Your task to perform on an android device: Do I have any events this weekend? Image 0: 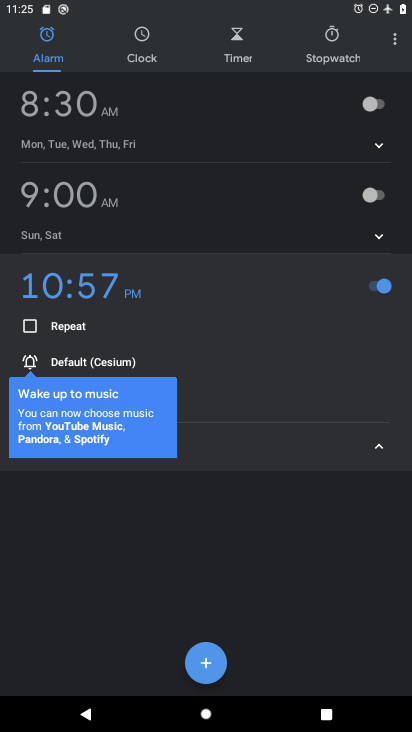
Step 0: press home button
Your task to perform on an android device: Do I have any events this weekend? Image 1: 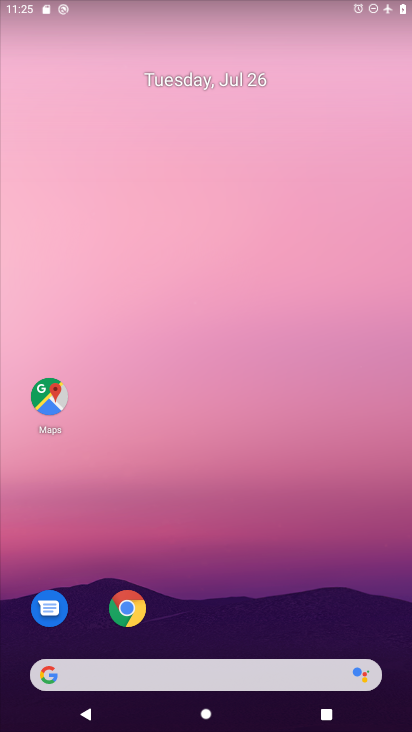
Step 1: drag from (256, 636) to (302, 195)
Your task to perform on an android device: Do I have any events this weekend? Image 2: 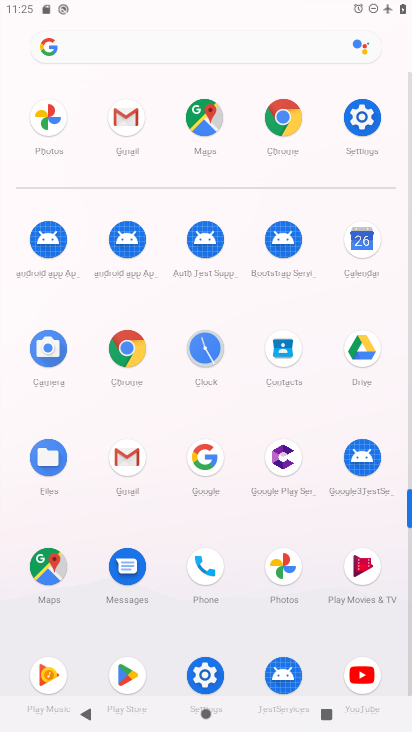
Step 2: click (370, 242)
Your task to perform on an android device: Do I have any events this weekend? Image 3: 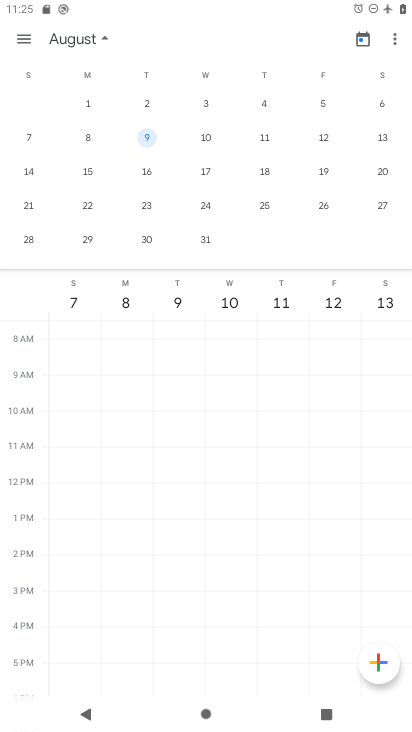
Step 3: drag from (90, 135) to (411, 126)
Your task to perform on an android device: Do I have any events this weekend? Image 4: 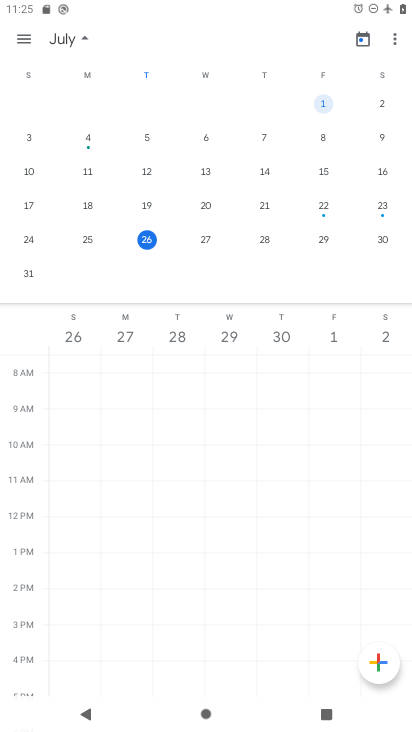
Step 4: click (148, 238)
Your task to perform on an android device: Do I have any events this weekend? Image 5: 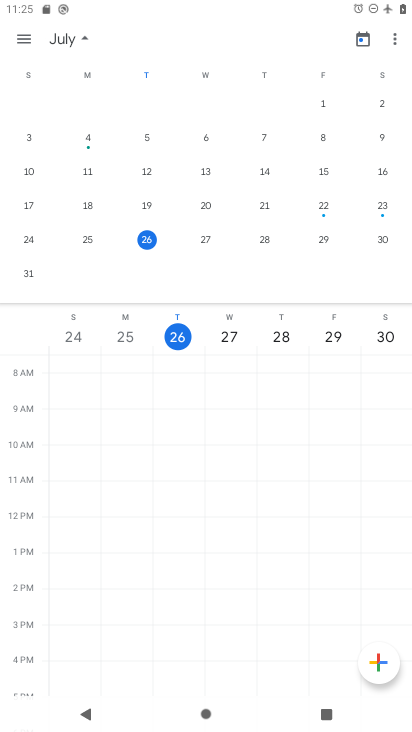
Step 5: click (326, 239)
Your task to perform on an android device: Do I have any events this weekend? Image 6: 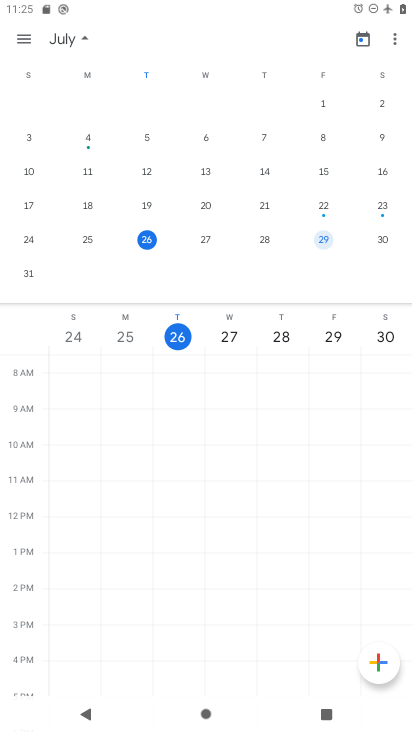
Step 6: click (389, 238)
Your task to perform on an android device: Do I have any events this weekend? Image 7: 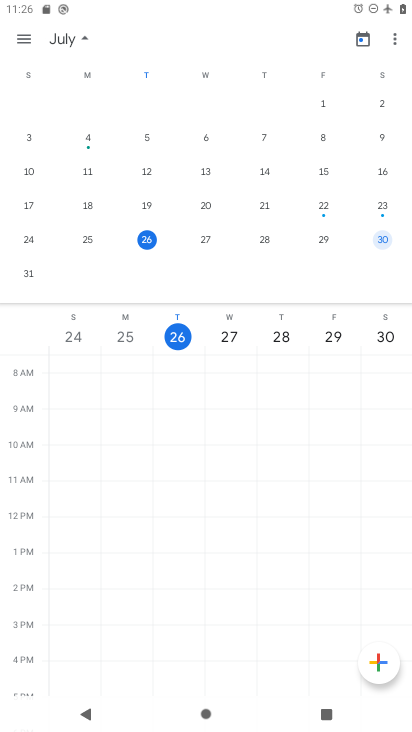
Step 7: click (30, 34)
Your task to perform on an android device: Do I have any events this weekend? Image 8: 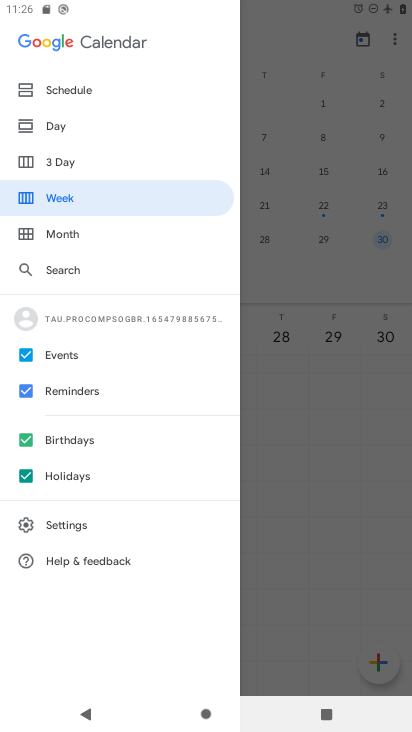
Step 8: click (54, 153)
Your task to perform on an android device: Do I have any events this weekend? Image 9: 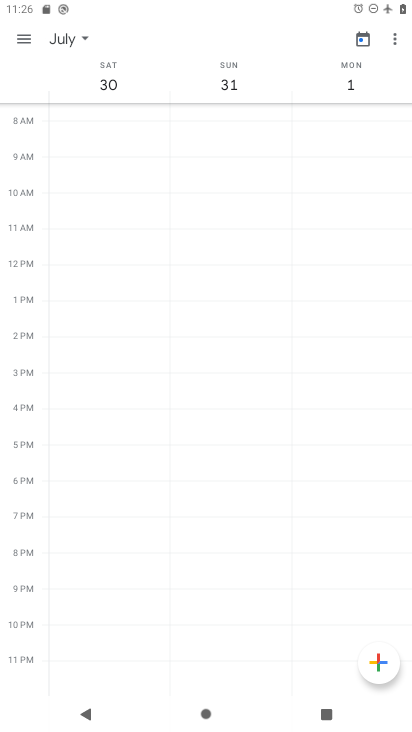
Step 9: task complete